Your task to perform on an android device: toggle location history Image 0: 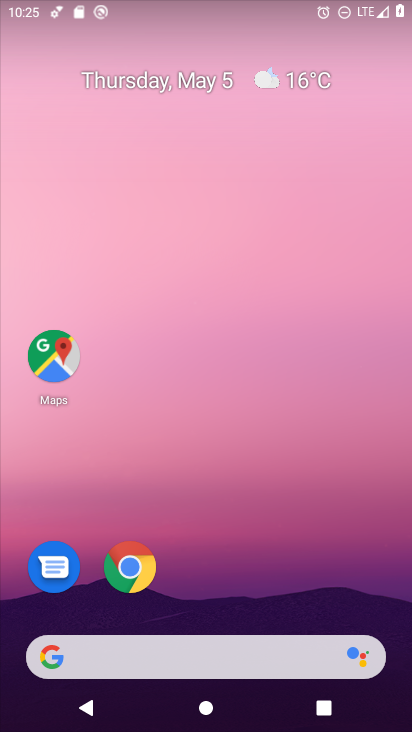
Step 0: drag from (339, 542) to (318, 26)
Your task to perform on an android device: toggle location history Image 1: 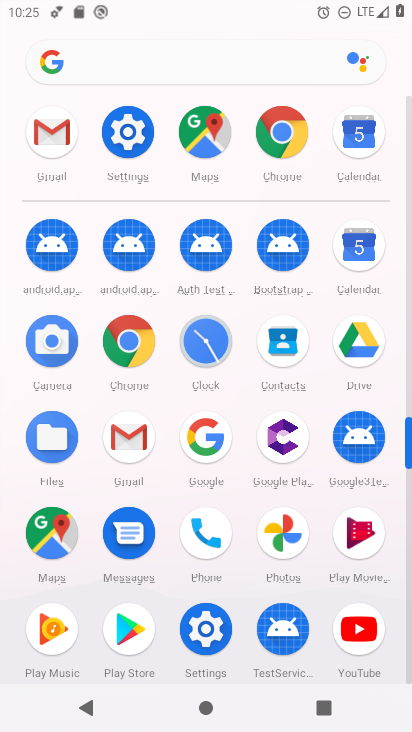
Step 1: click (134, 132)
Your task to perform on an android device: toggle location history Image 2: 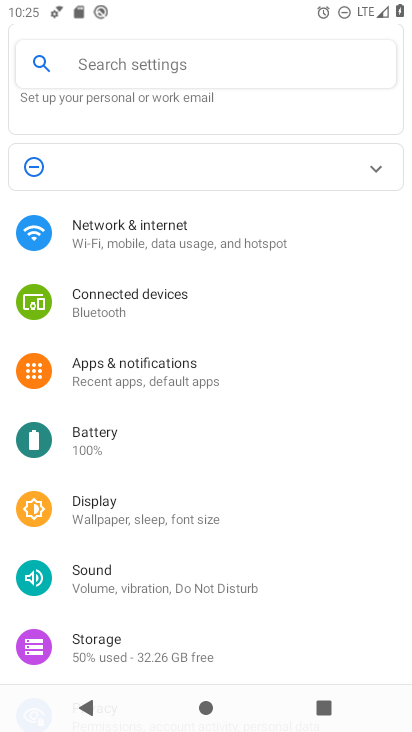
Step 2: drag from (185, 628) to (230, 165)
Your task to perform on an android device: toggle location history Image 3: 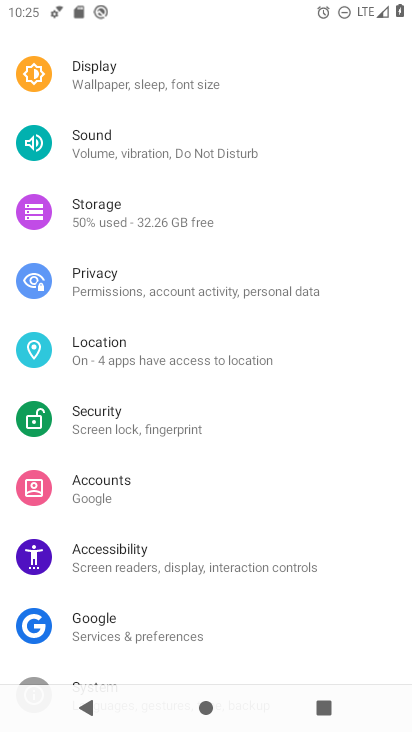
Step 3: click (176, 359)
Your task to perform on an android device: toggle location history Image 4: 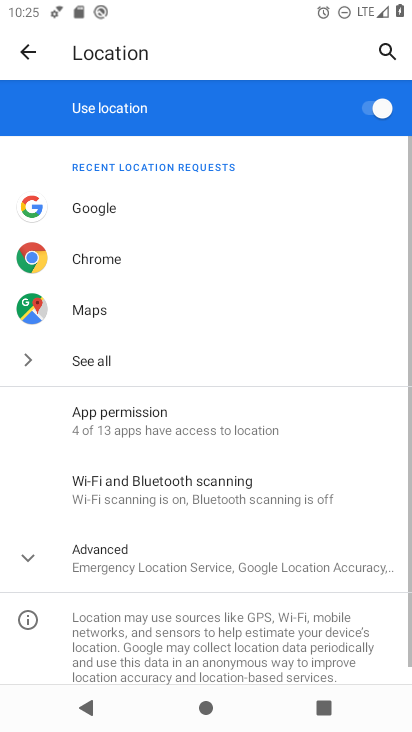
Step 4: click (30, 557)
Your task to perform on an android device: toggle location history Image 5: 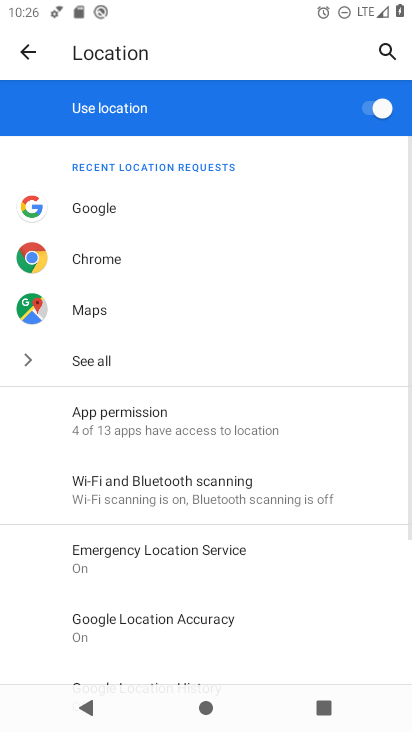
Step 5: drag from (262, 621) to (314, 258)
Your task to perform on an android device: toggle location history Image 6: 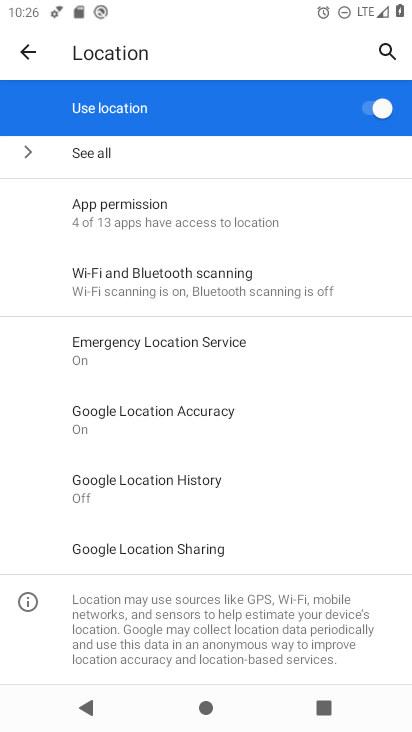
Step 6: click (176, 488)
Your task to perform on an android device: toggle location history Image 7: 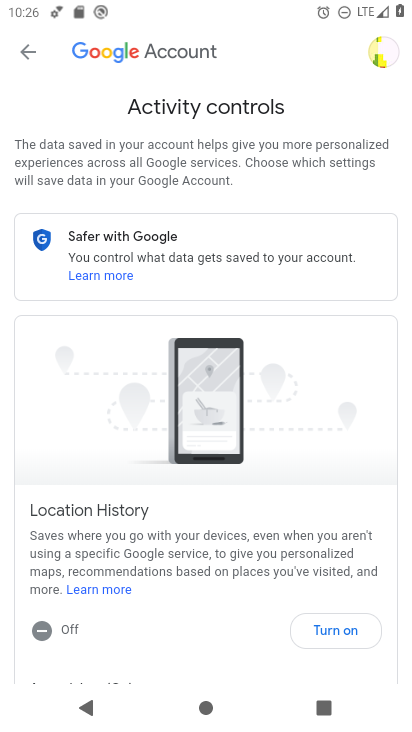
Step 7: click (336, 631)
Your task to perform on an android device: toggle location history Image 8: 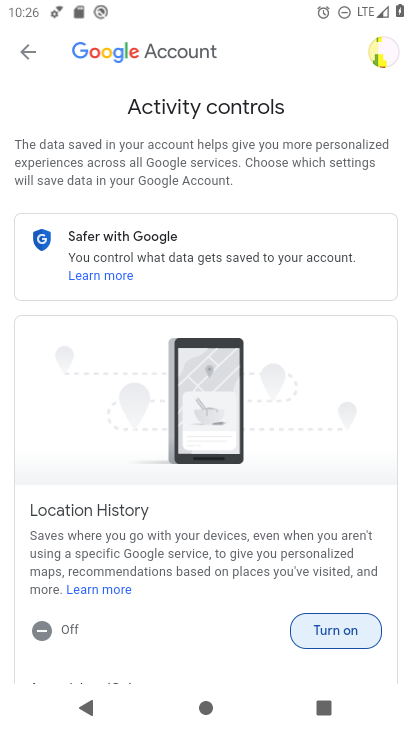
Step 8: click (327, 634)
Your task to perform on an android device: toggle location history Image 9: 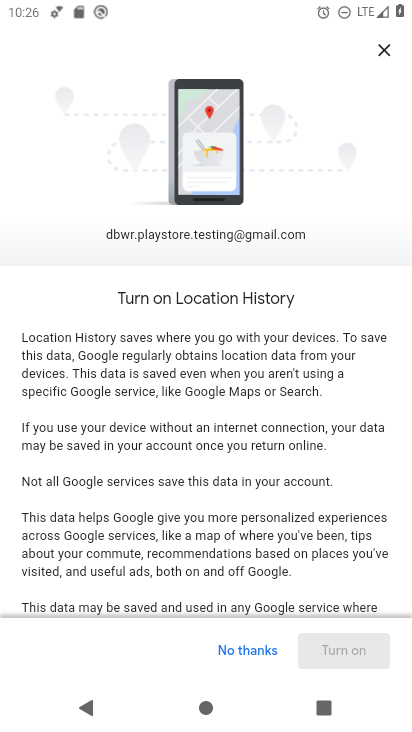
Step 9: drag from (326, 505) to (311, 88)
Your task to perform on an android device: toggle location history Image 10: 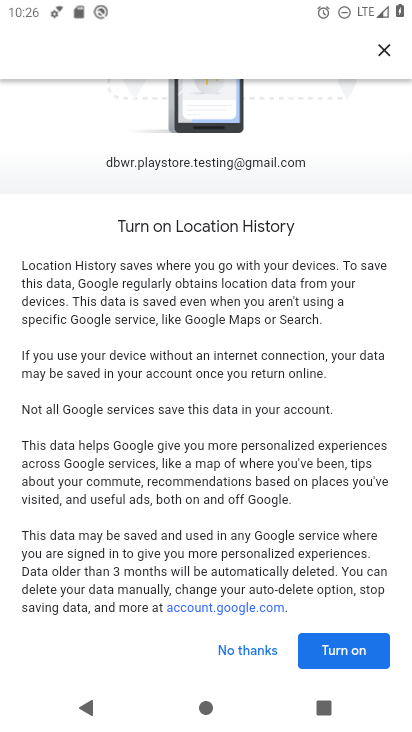
Step 10: click (346, 649)
Your task to perform on an android device: toggle location history Image 11: 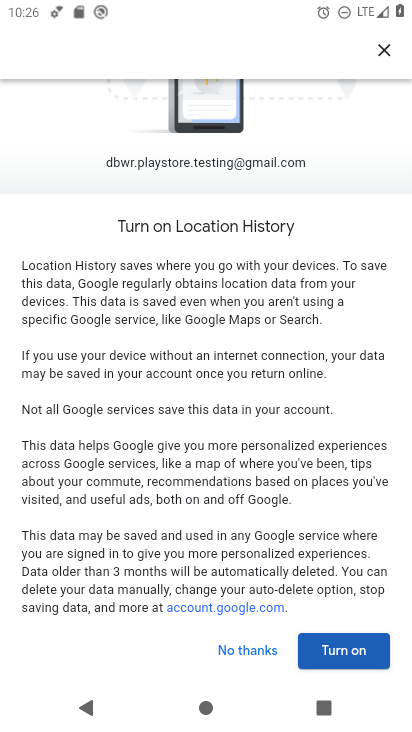
Step 11: click (348, 643)
Your task to perform on an android device: toggle location history Image 12: 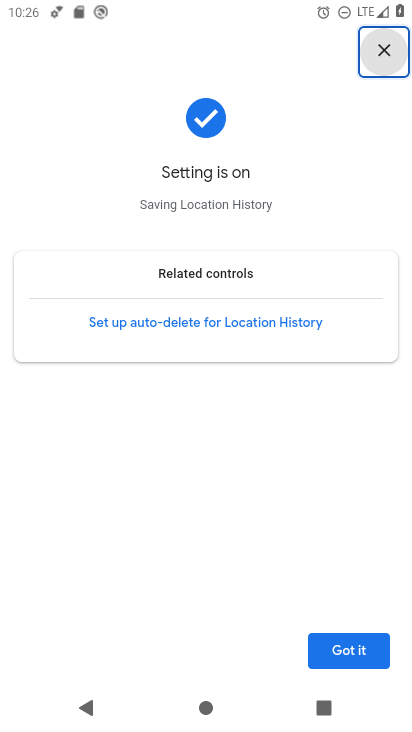
Step 12: click (348, 643)
Your task to perform on an android device: toggle location history Image 13: 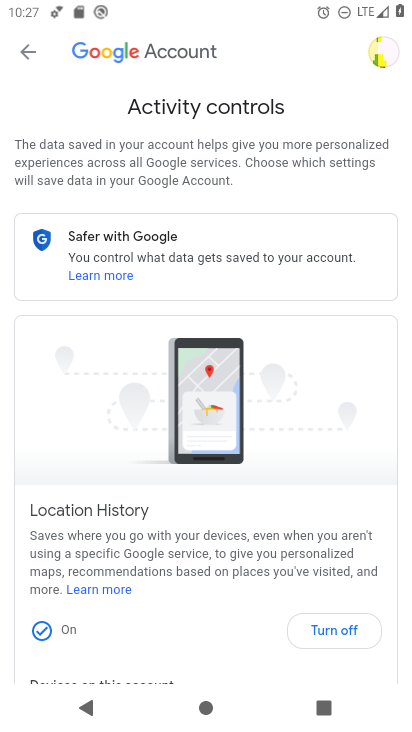
Step 13: task complete